Your task to perform on an android device: Open the web browser Image 0: 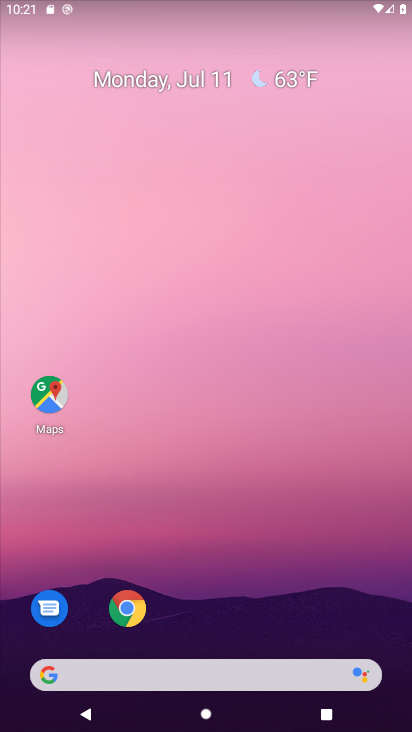
Step 0: click (122, 610)
Your task to perform on an android device: Open the web browser Image 1: 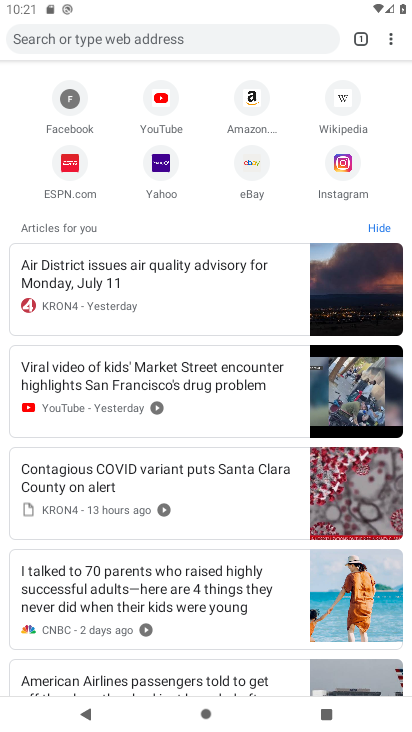
Step 1: task complete